Your task to perform on an android device: Toggle the flashlight Image 0: 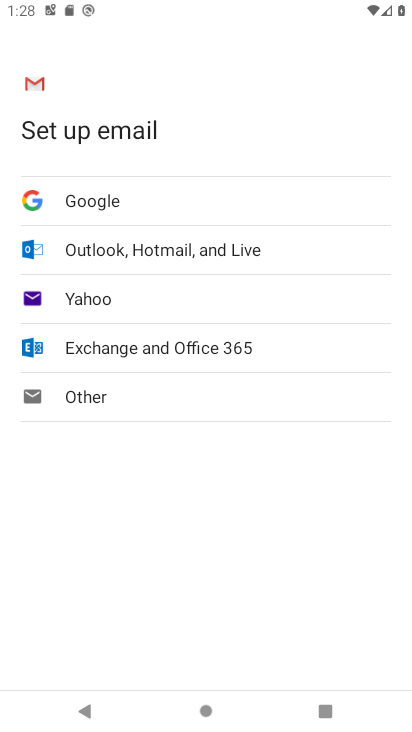
Step 0: press home button
Your task to perform on an android device: Toggle the flashlight Image 1: 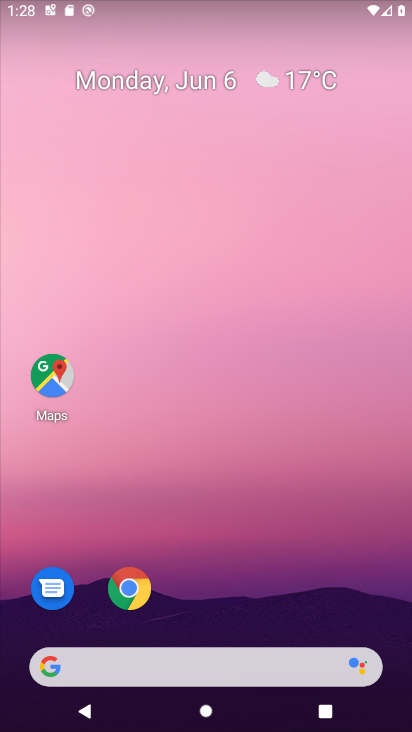
Step 1: task complete